Your task to perform on an android device: see sites visited before in the chrome app Image 0: 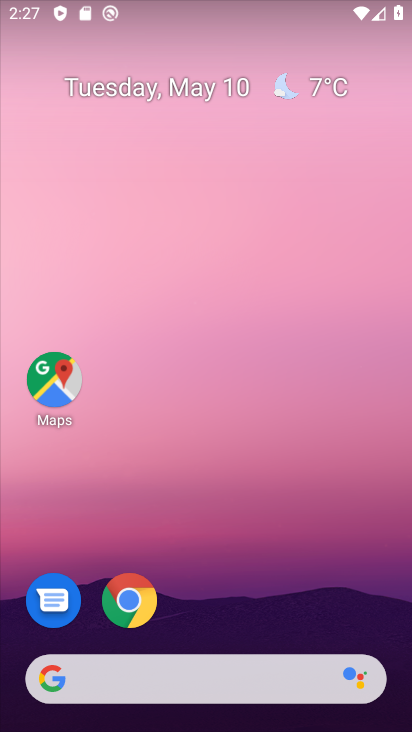
Step 0: click (138, 584)
Your task to perform on an android device: see sites visited before in the chrome app Image 1: 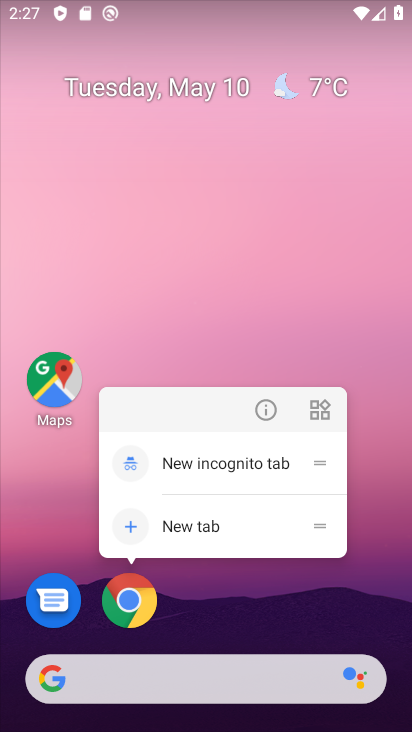
Step 1: click (138, 620)
Your task to perform on an android device: see sites visited before in the chrome app Image 2: 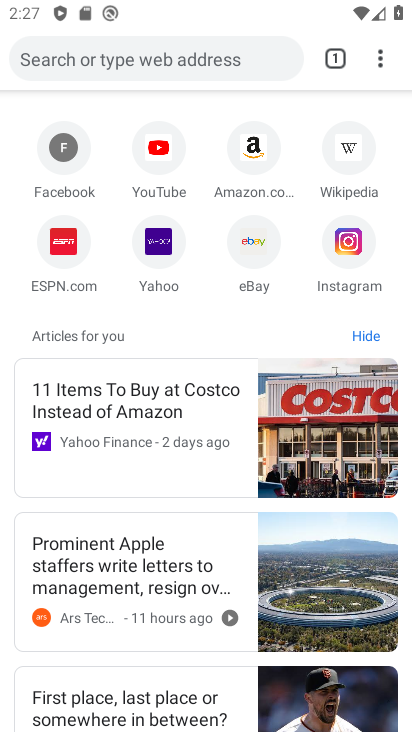
Step 2: click (384, 62)
Your task to perform on an android device: see sites visited before in the chrome app Image 3: 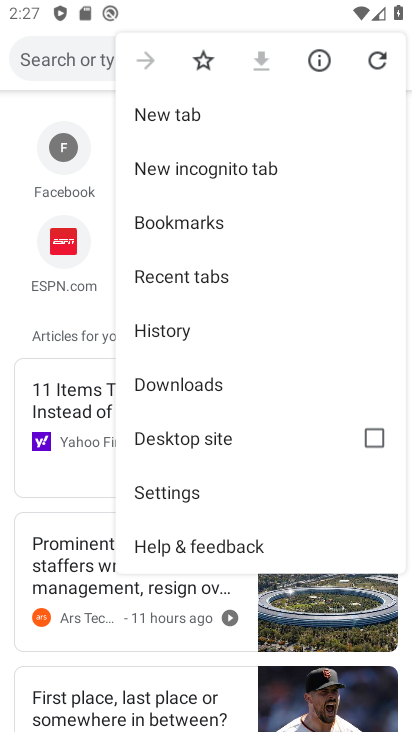
Step 3: click (140, 326)
Your task to perform on an android device: see sites visited before in the chrome app Image 4: 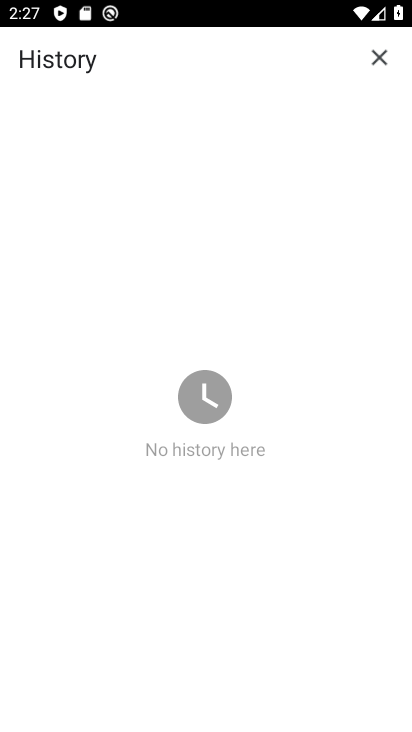
Step 4: task complete